Your task to perform on an android device: Go to settings Image 0: 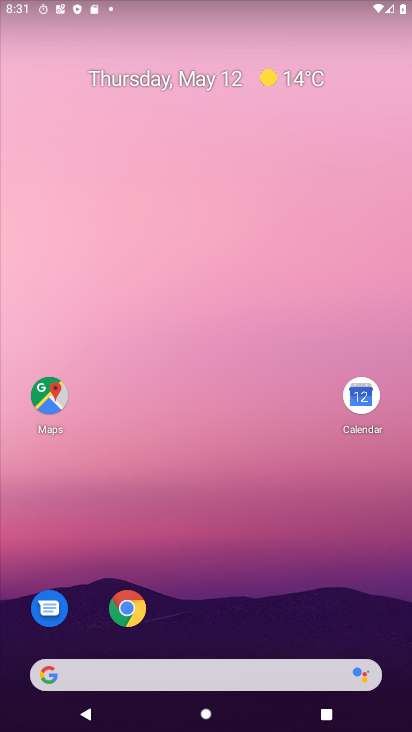
Step 0: drag from (223, 480) to (222, 164)
Your task to perform on an android device: Go to settings Image 1: 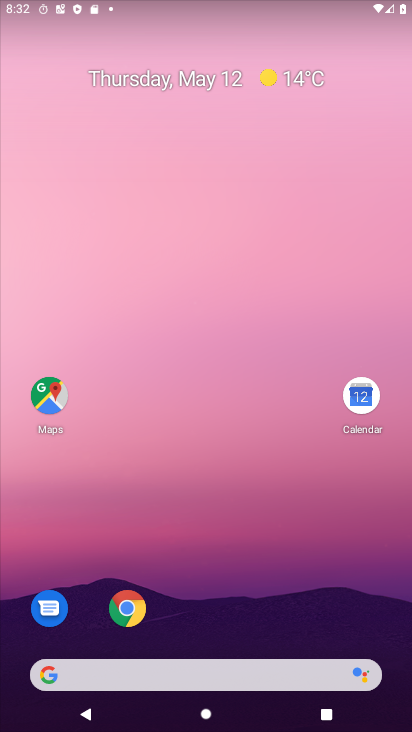
Step 1: drag from (261, 599) to (335, 55)
Your task to perform on an android device: Go to settings Image 2: 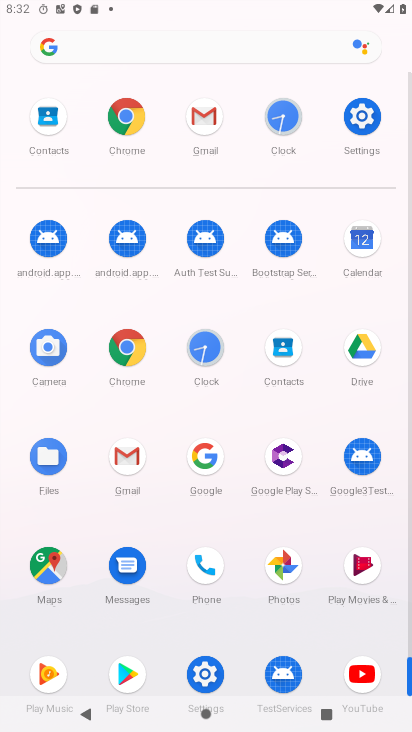
Step 2: click (346, 126)
Your task to perform on an android device: Go to settings Image 3: 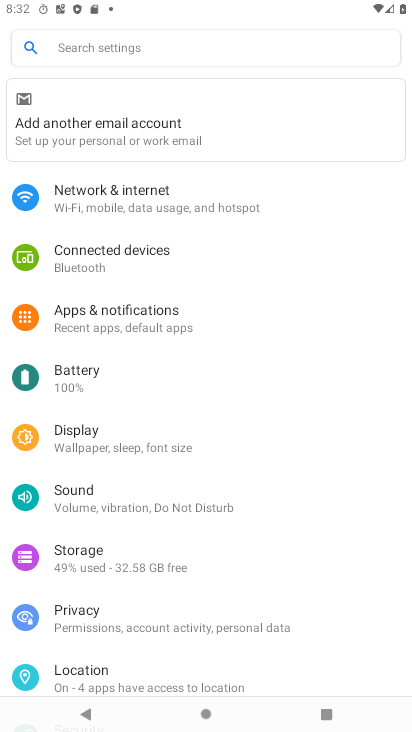
Step 3: task complete